Your task to perform on an android device: turn on sleep mode Image 0: 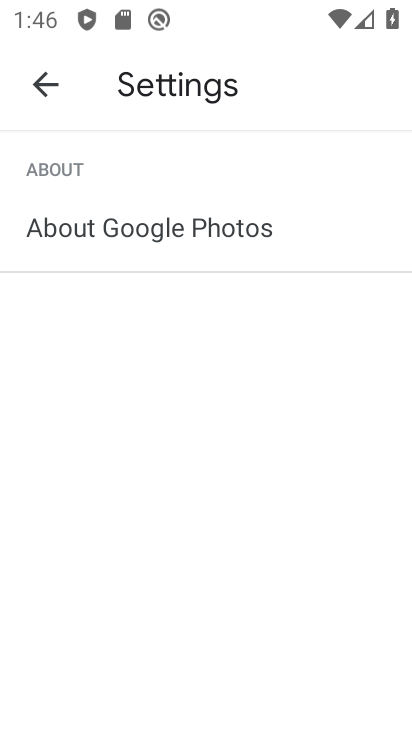
Step 0: press home button
Your task to perform on an android device: turn on sleep mode Image 1: 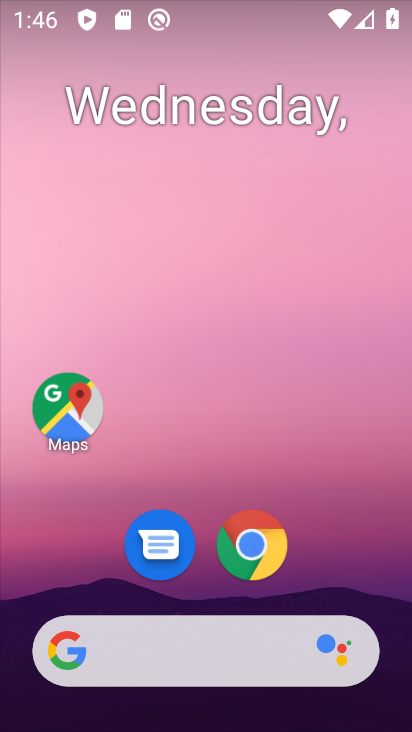
Step 1: drag from (378, 551) to (317, 44)
Your task to perform on an android device: turn on sleep mode Image 2: 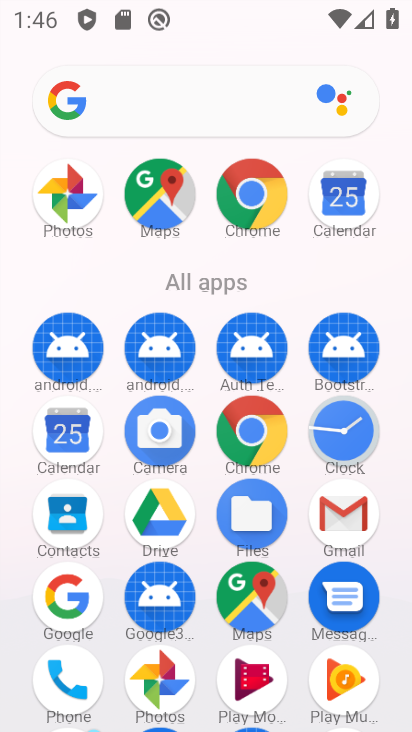
Step 2: drag from (208, 652) to (276, 236)
Your task to perform on an android device: turn on sleep mode Image 3: 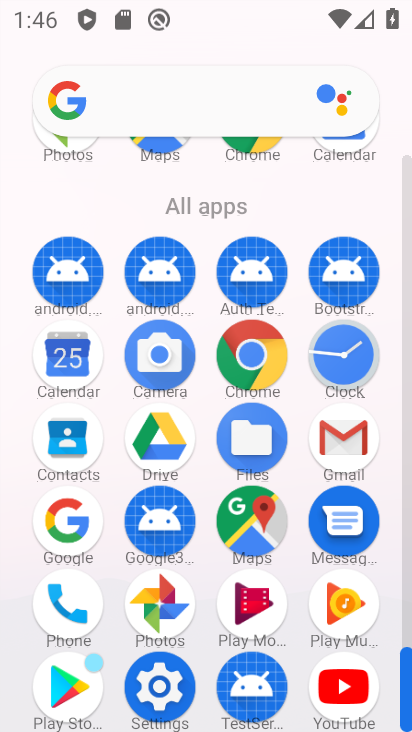
Step 3: click (157, 692)
Your task to perform on an android device: turn on sleep mode Image 4: 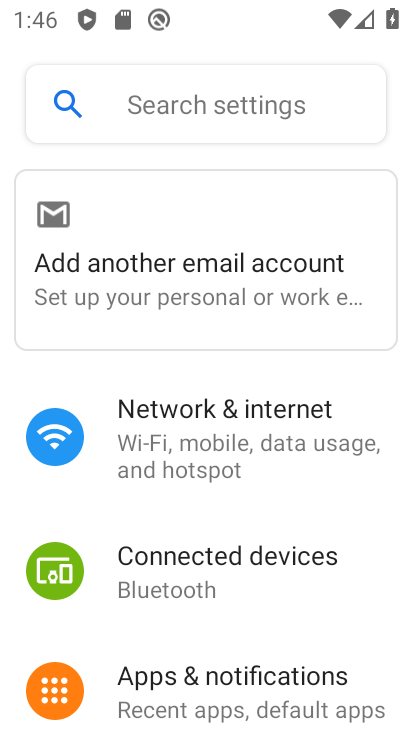
Step 4: drag from (261, 613) to (335, 143)
Your task to perform on an android device: turn on sleep mode Image 5: 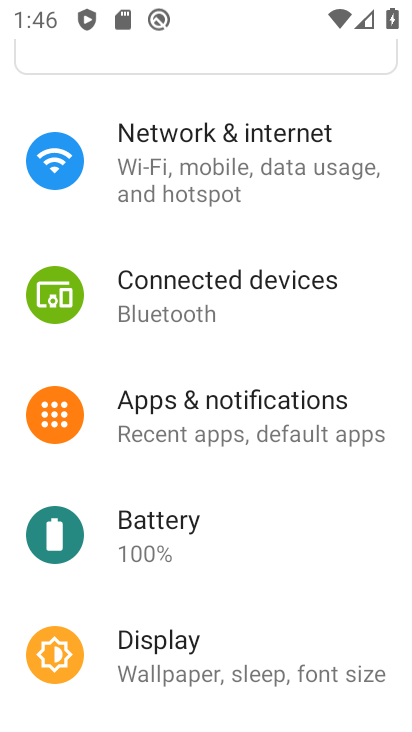
Step 5: click (227, 641)
Your task to perform on an android device: turn on sleep mode Image 6: 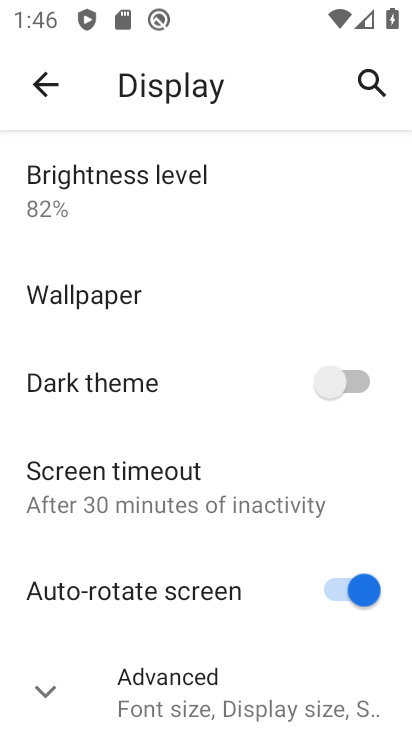
Step 6: task complete